Your task to perform on an android device: Open the play store Image 0: 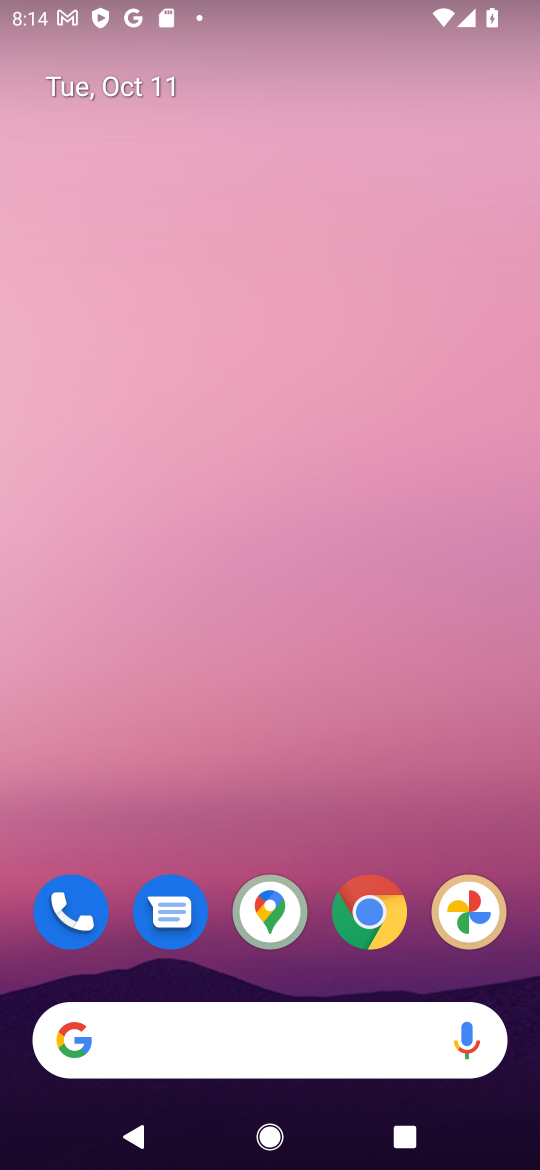
Step 0: drag from (427, 966) to (375, 128)
Your task to perform on an android device: Open the play store Image 1: 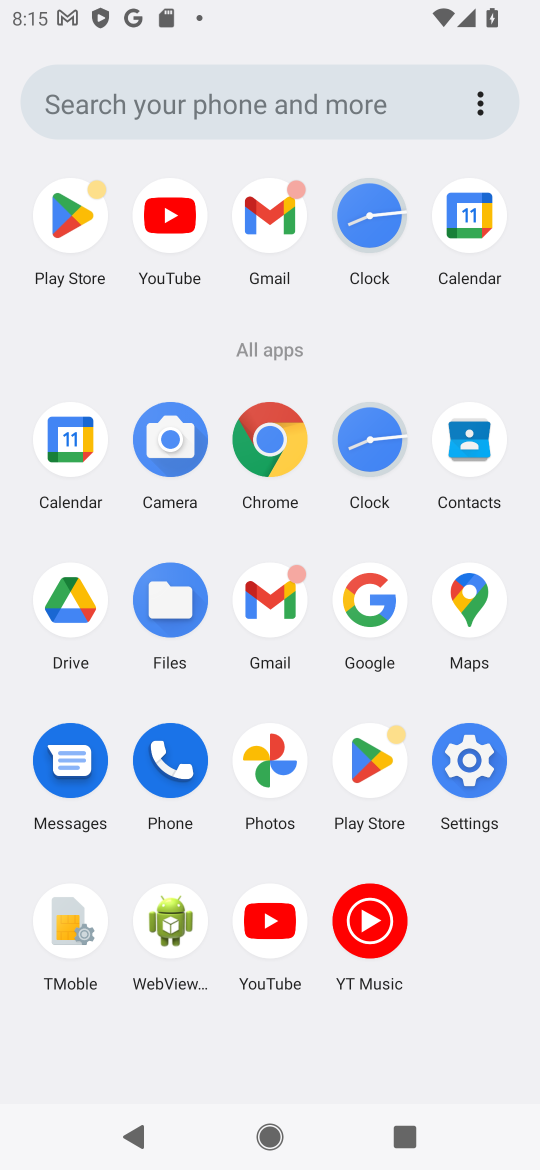
Step 1: click (363, 761)
Your task to perform on an android device: Open the play store Image 2: 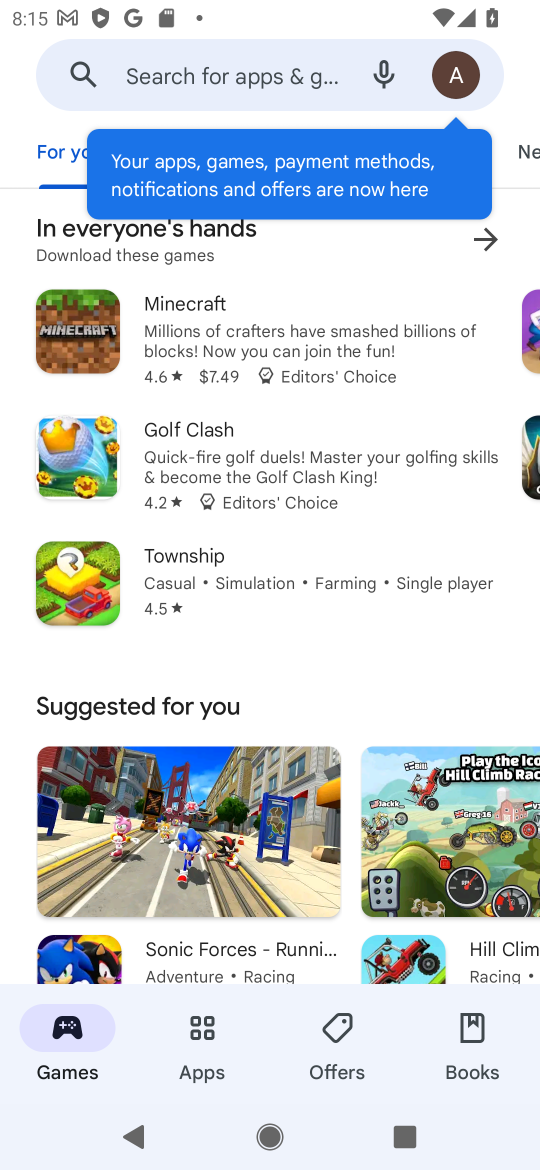
Step 2: task complete